Your task to perform on an android device: open sync settings in chrome Image 0: 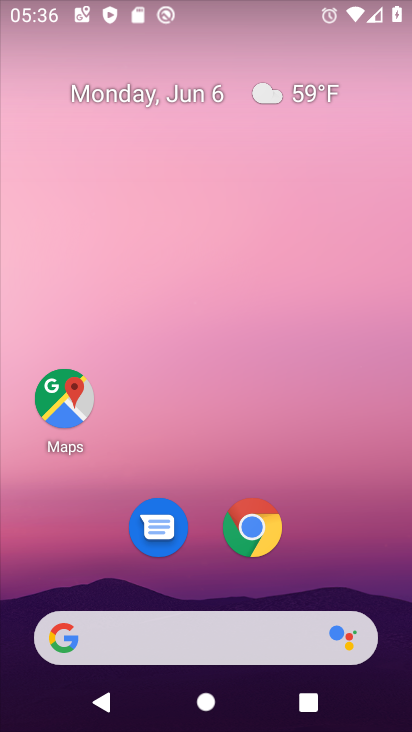
Step 0: click (252, 524)
Your task to perform on an android device: open sync settings in chrome Image 1: 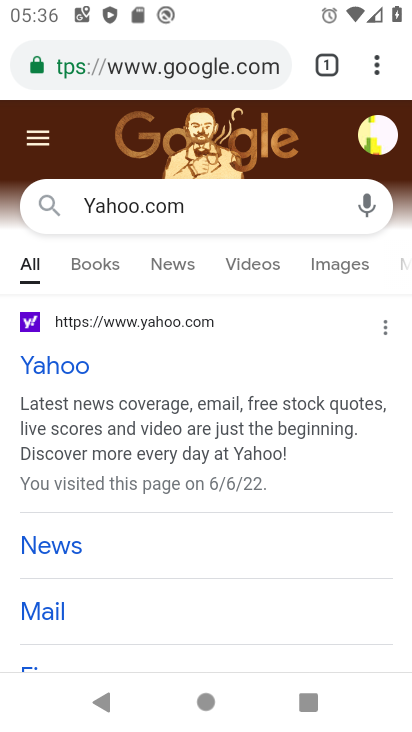
Step 1: click (376, 54)
Your task to perform on an android device: open sync settings in chrome Image 2: 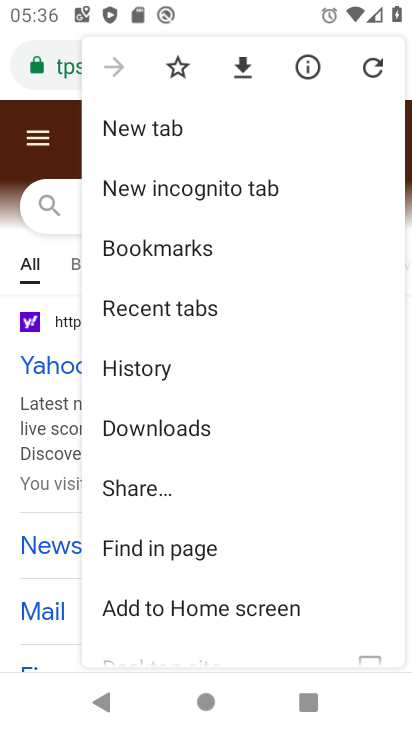
Step 2: drag from (296, 520) to (298, 223)
Your task to perform on an android device: open sync settings in chrome Image 3: 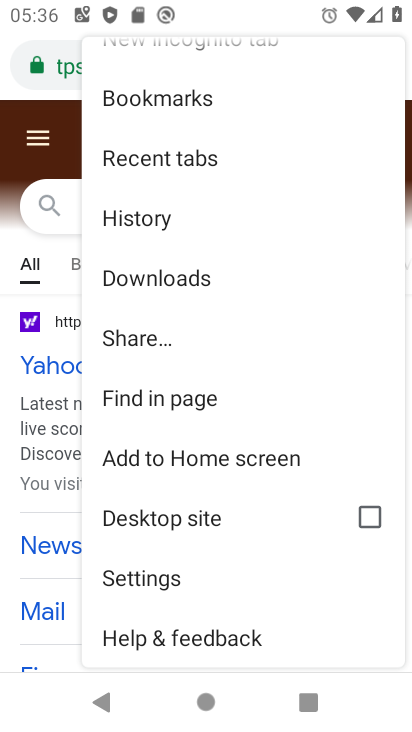
Step 3: click (147, 577)
Your task to perform on an android device: open sync settings in chrome Image 4: 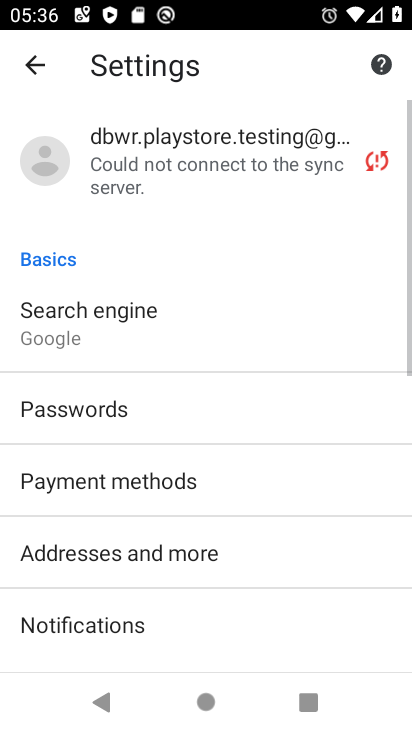
Step 4: drag from (249, 587) to (262, 228)
Your task to perform on an android device: open sync settings in chrome Image 5: 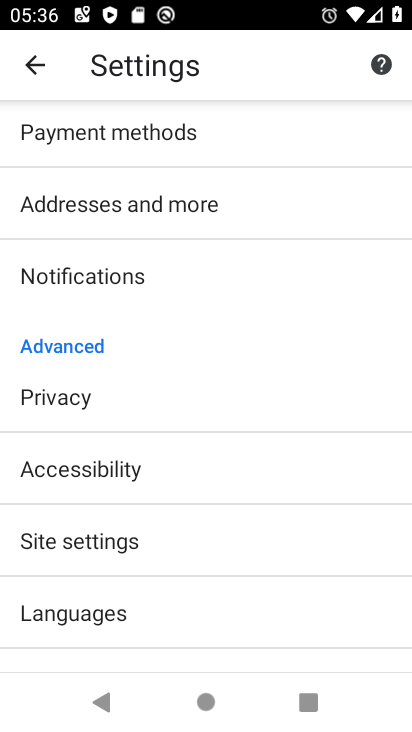
Step 5: drag from (208, 636) to (250, 319)
Your task to perform on an android device: open sync settings in chrome Image 6: 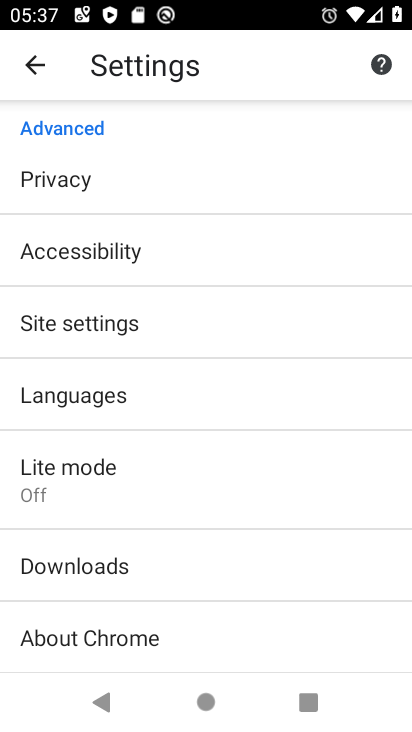
Step 6: click (91, 332)
Your task to perform on an android device: open sync settings in chrome Image 7: 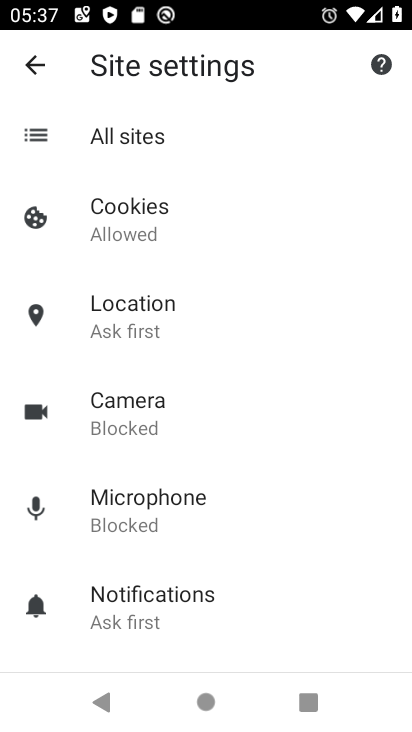
Step 7: drag from (225, 597) to (213, 277)
Your task to perform on an android device: open sync settings in chrome Image 8: 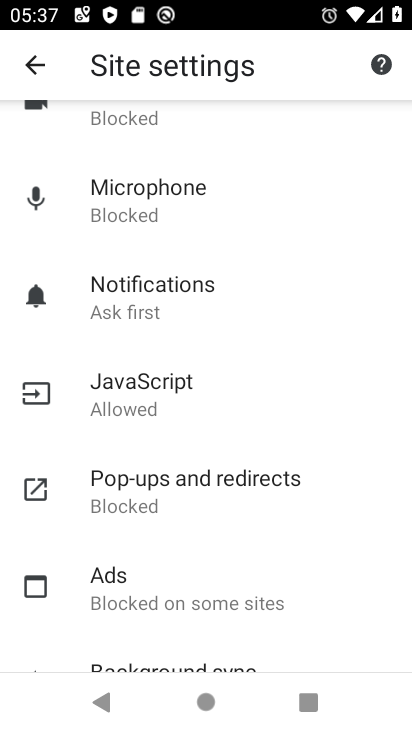
Step 8: drag from (214, 567) to (219, 281)
Your task to perform on an android device: open sync settings in chrome Image 9: 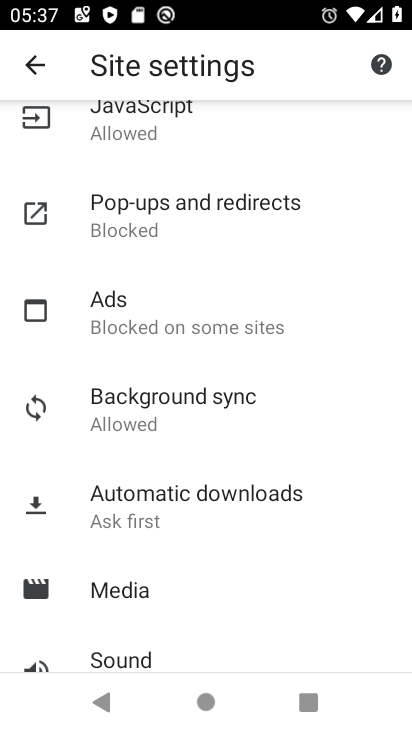
Step 9: click (169, 405)
Your task to perform on an android device: open sync settings in chrome Image 10: 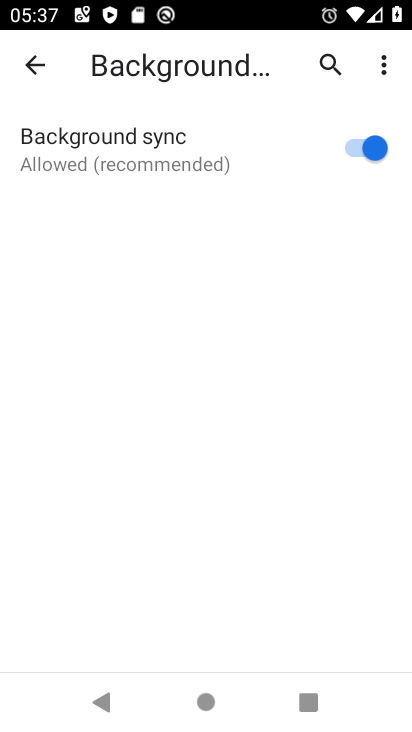
Step 10: task complete